Your task to perform on an android device: Open internet settings Image 0: 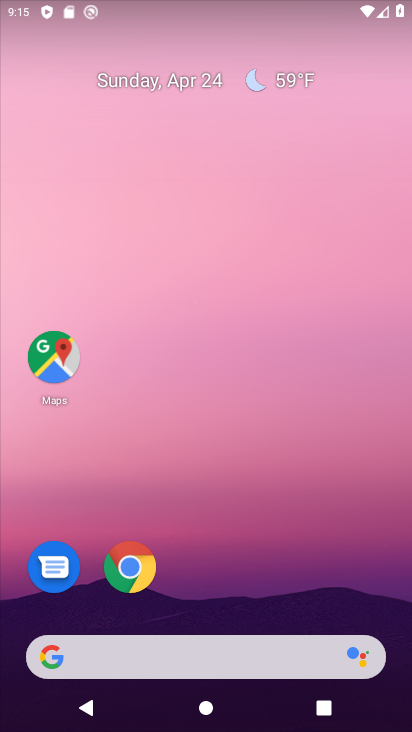
Step 0: drag from (406, 406) to (411, 66)
Your task to perform on an android device: Open internet settings Image 1: 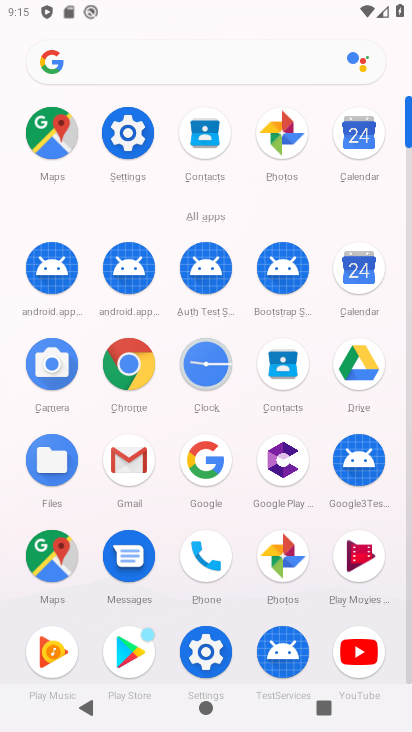
Step 1: click (113, 129)
Your task to perform on an android device: Open internet settings Image 2: 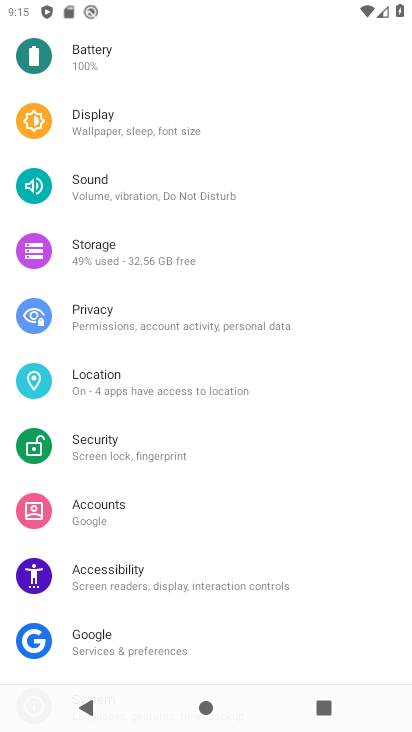
Step 2: drag from (331, 200) to (309, 587)
Your task to perform on an android device: Open internet settings Image 3: 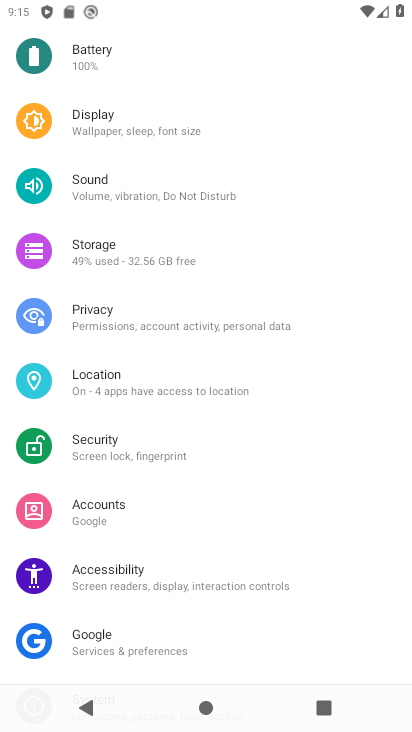
Step 3: drag from (363, 401) to (368, 492)
Your task to perform on an android device: Open internet settings Image 4: 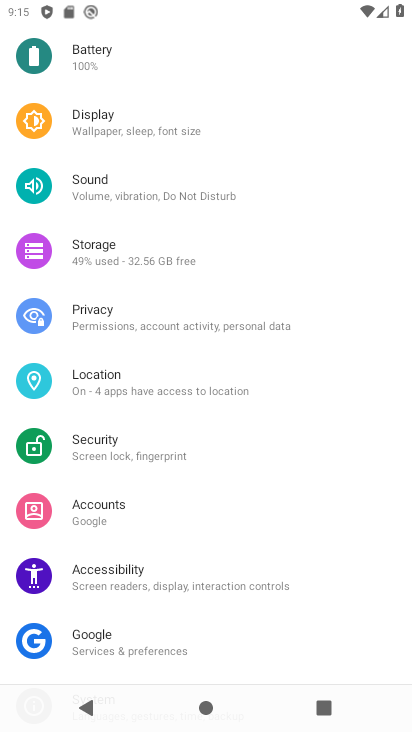
Step 4: drag from (344, 297) to (347, 608)
Your task to perform on an android device: Open internet settings Image 5: 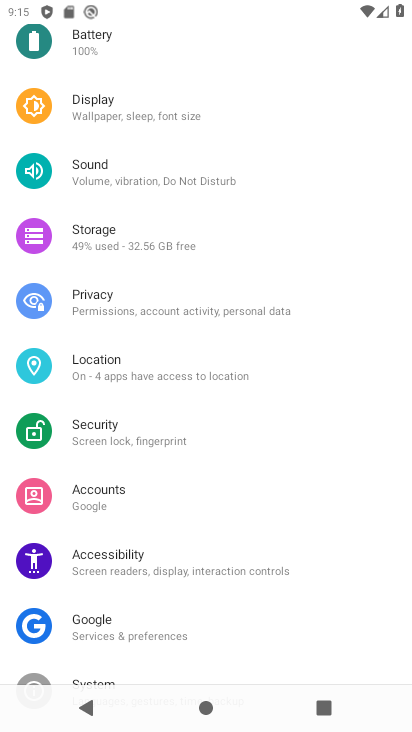
Step 5: drag from (369, 478) to (378, 584)
Your task to perform on an android device: Open internet settings Image 6: 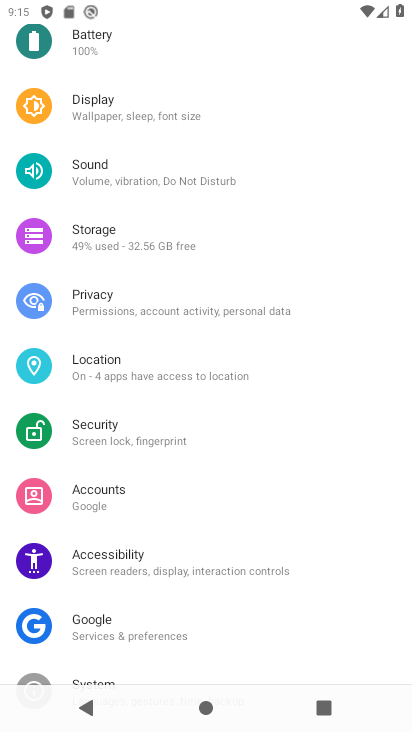
Step 6: drag from (315, 175) to (310, 574)
Your task to perform on an android device: Open internet settings Image 7: 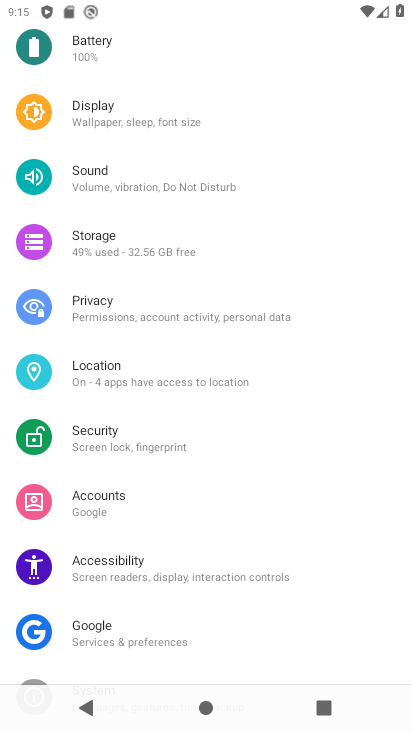
Step 7: drag from (331, 88) to (388, 610)
Your task to perform on an android device: Open internet settings Image 8: 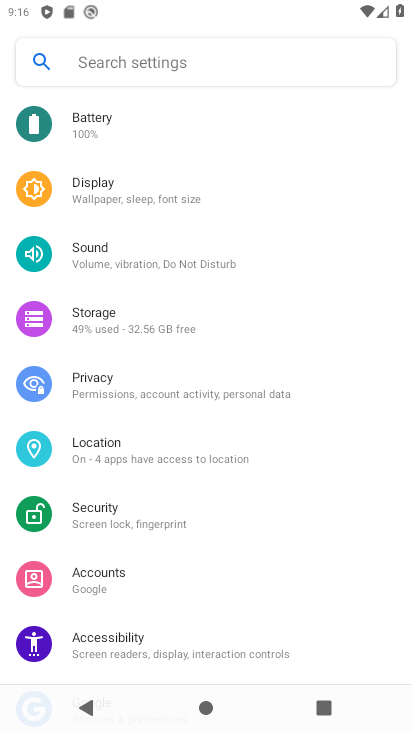
Step 8: drag from (347, 123) to (411, 614)
Your task to perform on an android device: Open internet settings Image 9: 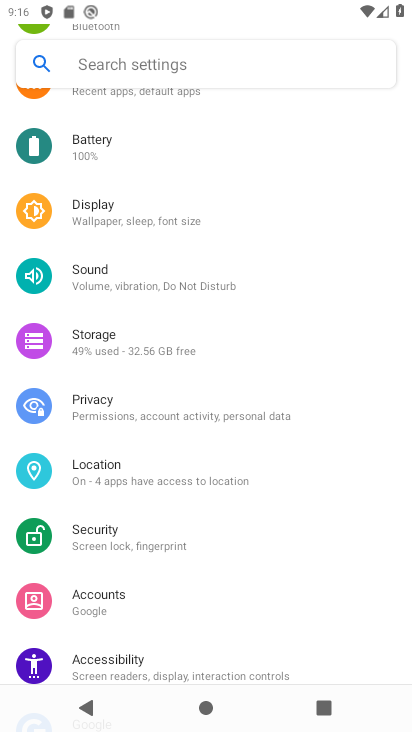
Step 9: drag from (324, 219) to (379, 546)
Your task to perform on an android device: Open internet settings Image 10: 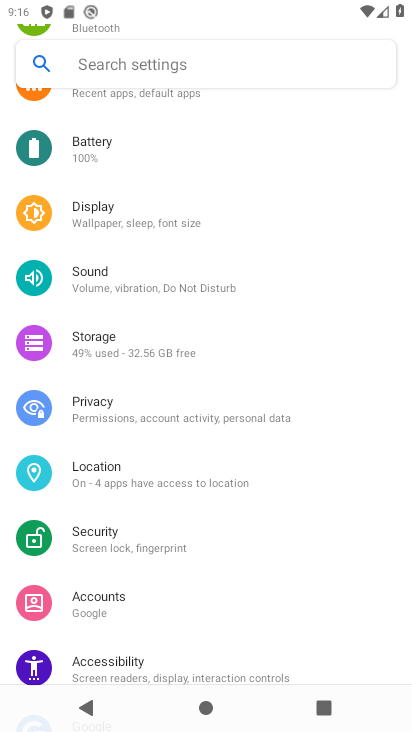
Step 10: drag from (360, 160) to (381, 716)
Your task to perform on an android device: Open internet settings Image 11: 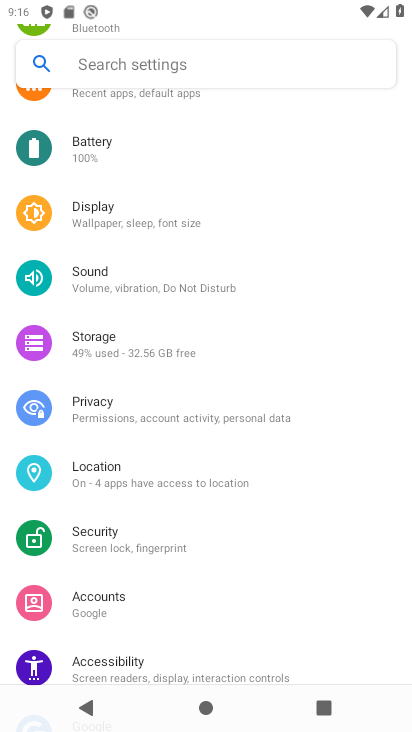
Step 11: drag from (366, 194) to (397, 417)
Your task to perform on an android device: Open internet settings Image 12: 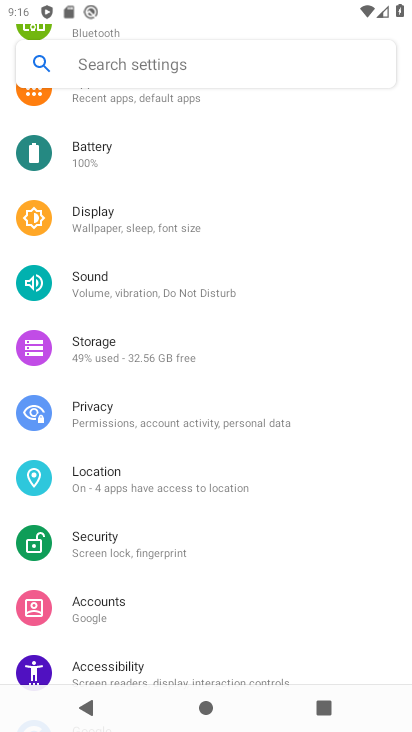
Step 12: drag from (390, 384) to (411, 538)
Your task to perform on an android device: Open internet settings Image 13: 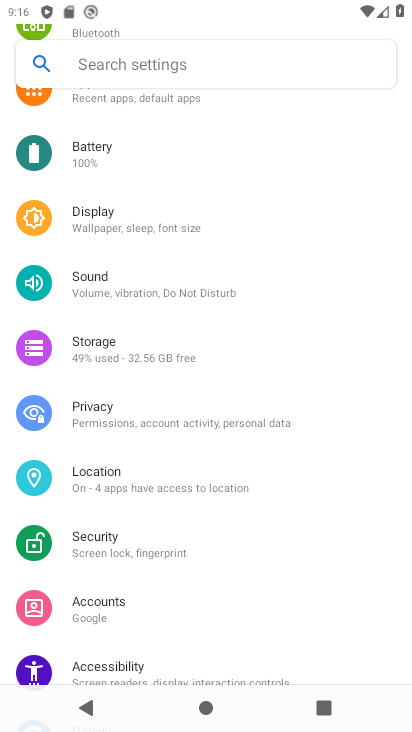
Step 13: drag from (361, 579) to (361, 659)
Your task to perform on an android device: Open internet settings Image 14: 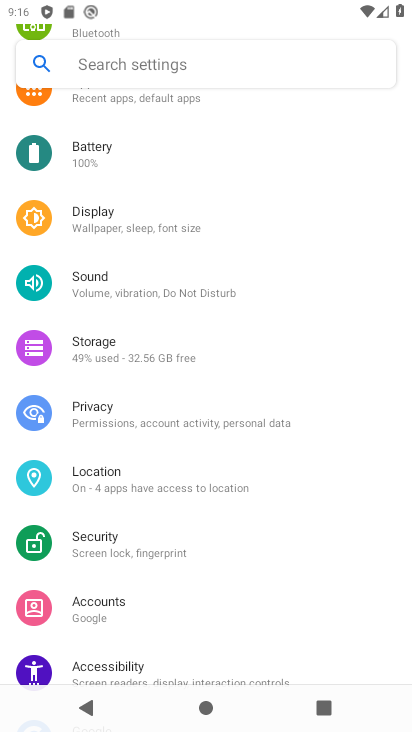
Step 14: drag from (368, 361) to (385, 498)
Your task to perform on an android device: Open internet settings Image 15: 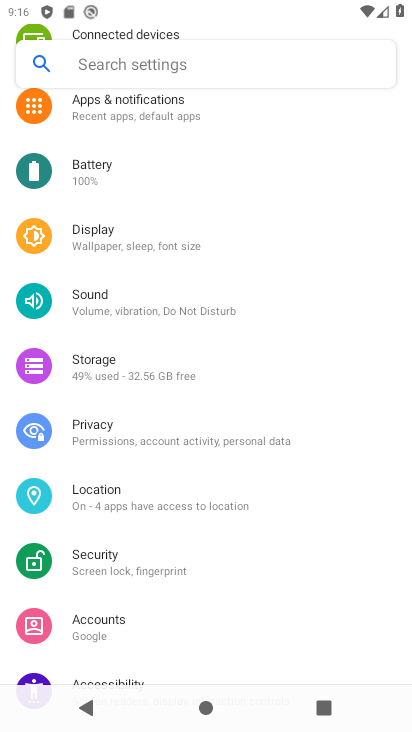
Step 15: drag from (348, 149) to (405, 599)
Your task to perform on an android device: Open internet settings Image 16: 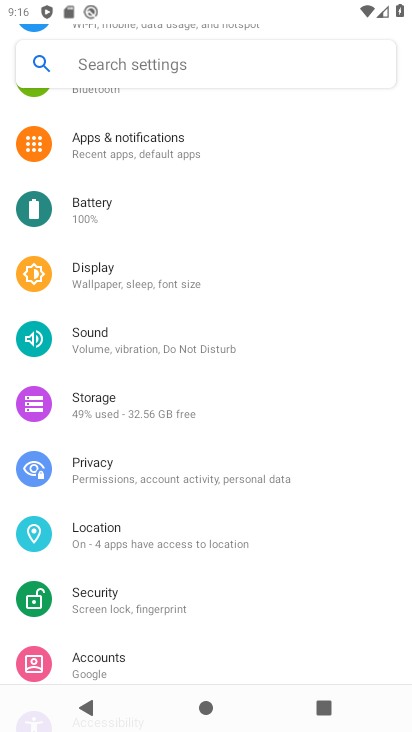
Step 16: drag from (358, 221) to (392, 473)
Your task to perform on an android device: Open internet settings Image 17: 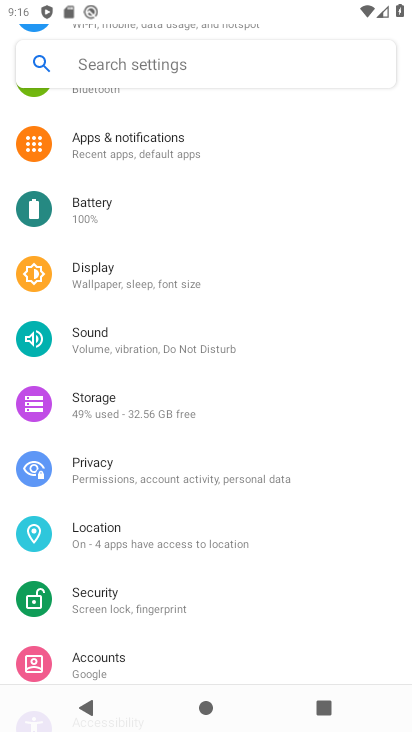
Step 17: drag from (392, 508) to (405, 647)
Your task to perform on an android device: Open internet settings Image 18: 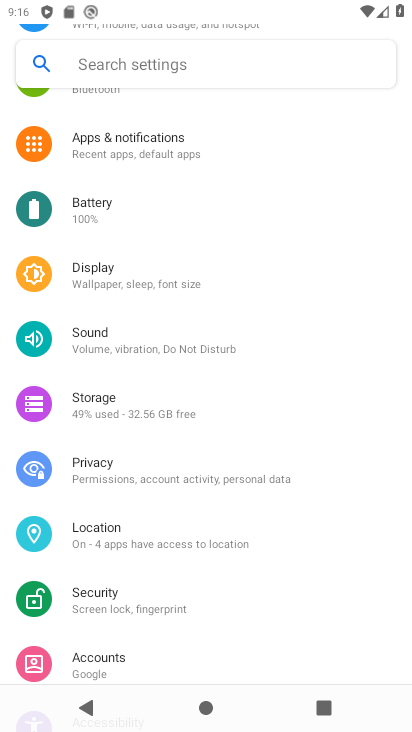
Step 18: drag from (331, 370) to (334, 464)
Your task to perform on an android device: Open internet settings Image 19: 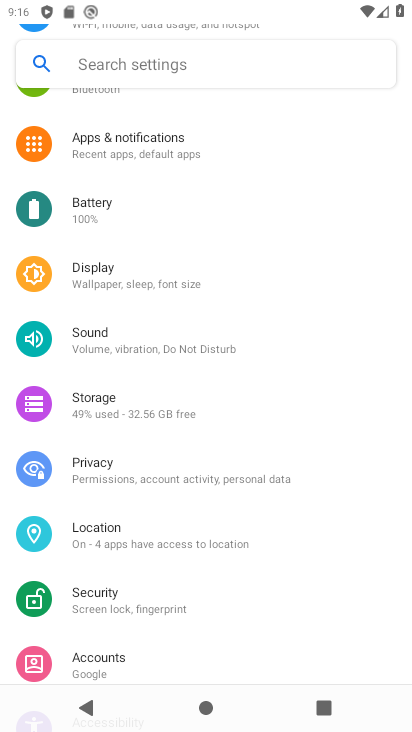
Step 19: drag from (406, 437) to (402, 583)
Your task to perform on an android device: Open internet settings Image 20: 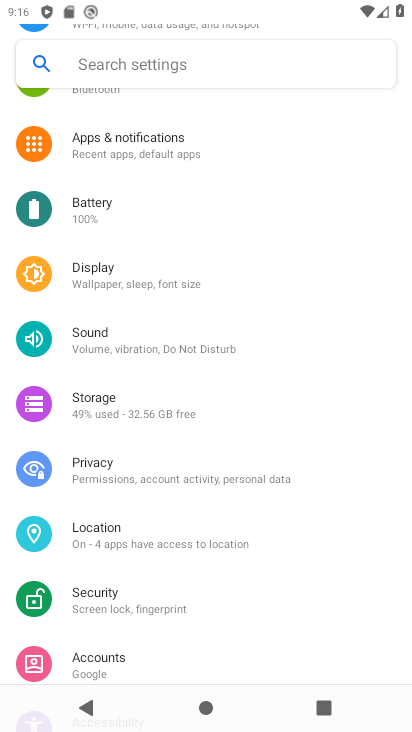
Step 20: drag from (380, 461) to (387, 539)
Your task to perform on an android device: Open internet settings Image 21: 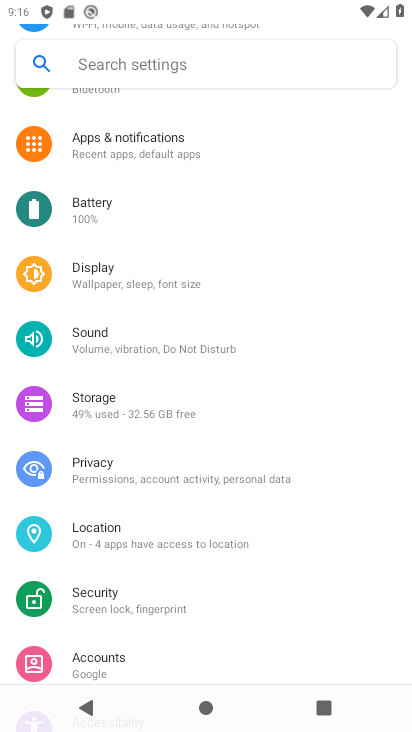
Step 21: drag from (342, 382) to (351, 621)
Your task to perform on an android device: Open internet settings Image 22: 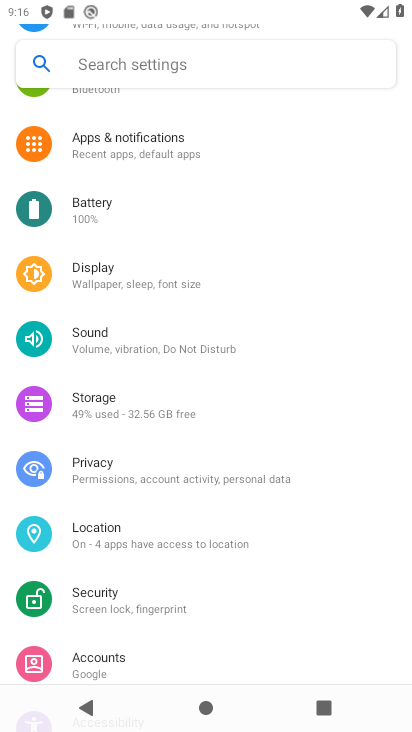
Step 22: drag from (376, 526) to (380, 574)
Your task to perform on an android device: Open internet settings Image 23: 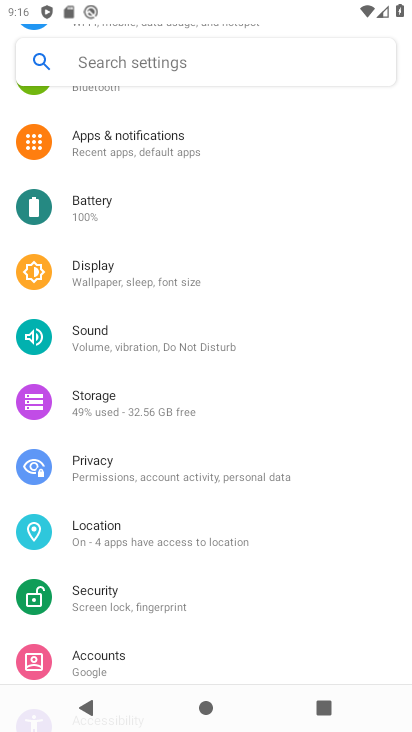
Step 23: click (374, 677)
Your task to perform on an android device: Open internet settings Image 24: 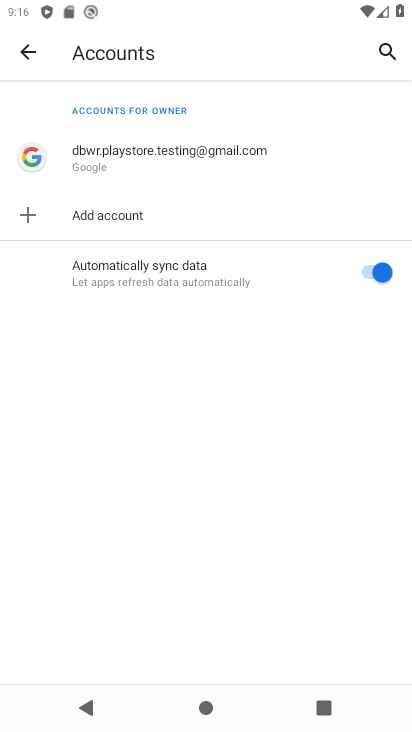
Step 24: drag from (356, 167) to (352, 610)
Your task to perform on an android device: Open internet settings Image 25: 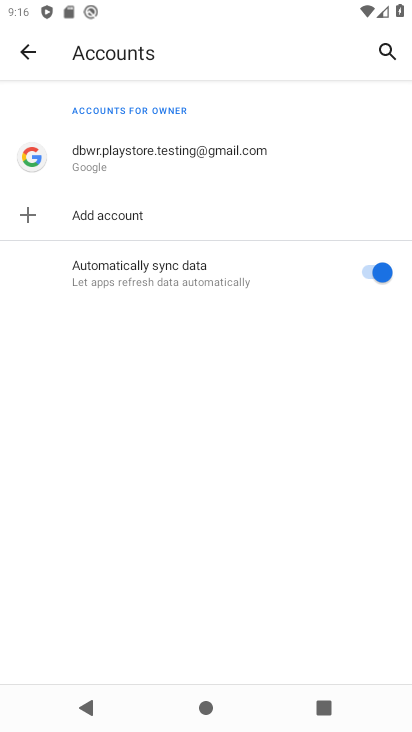
Step 25: press back button
Your task to perform on an android device: Open internet settings Image 26: 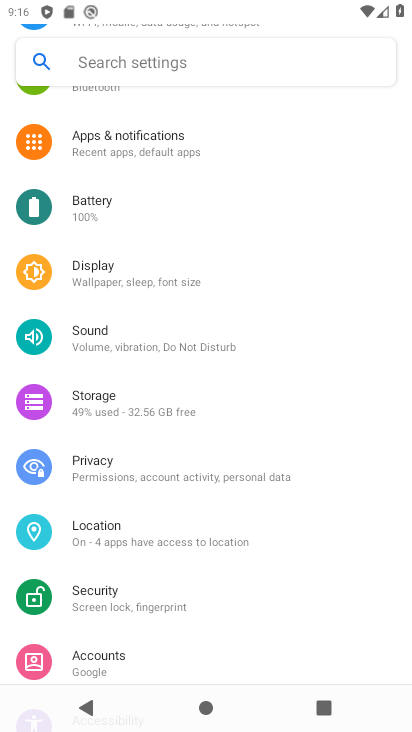
Step 26: drag from (377, 177) to (383, 480)
Your task to perform on an android device: Open internet settings Image 27: 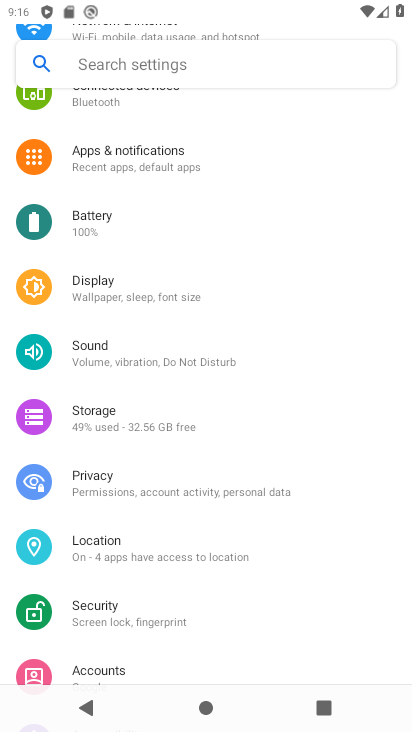
Step 27: click (178, 27)
Your task to perform on an android device: Open internet settings Image 28: 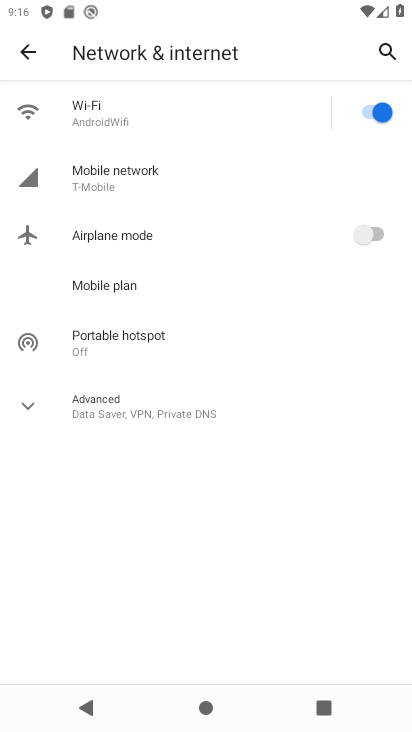
Step 28: task complete